Your task to perform on an android device: Open Google Chrome Image 0: 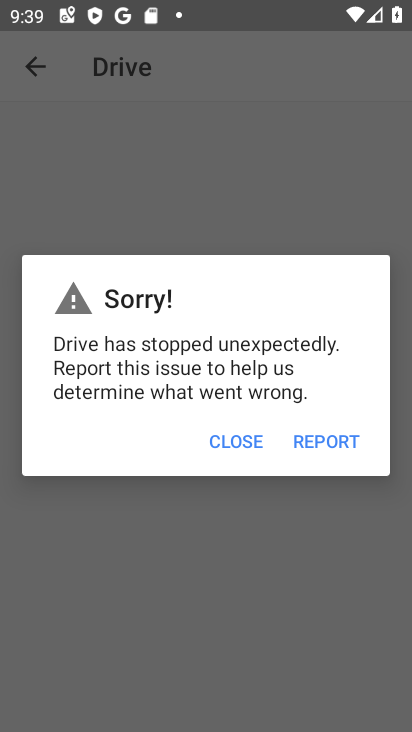
Step 0: press home button
Your task to perform on an android device: Open Google Chrome Image 1: 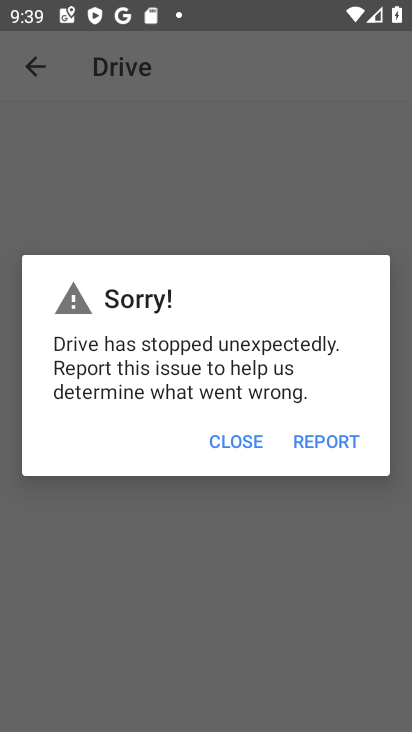
Step 1: press home button
Your task to perform on an android device: Open Google Chrome Image 2: 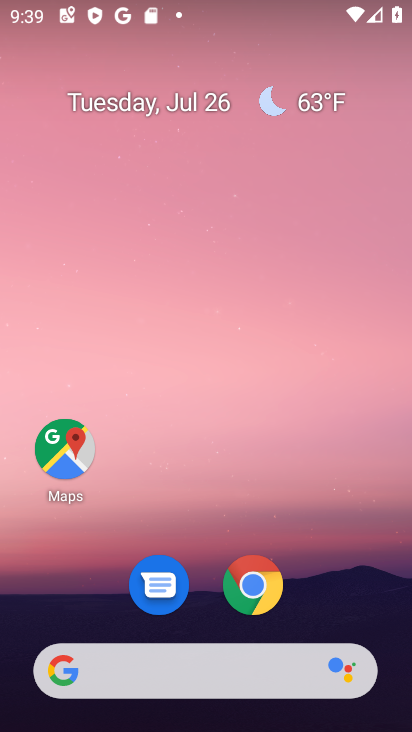
Step 2: click (257, 584)
Your task to perform on an android device: Open Google Chrome Image 3: 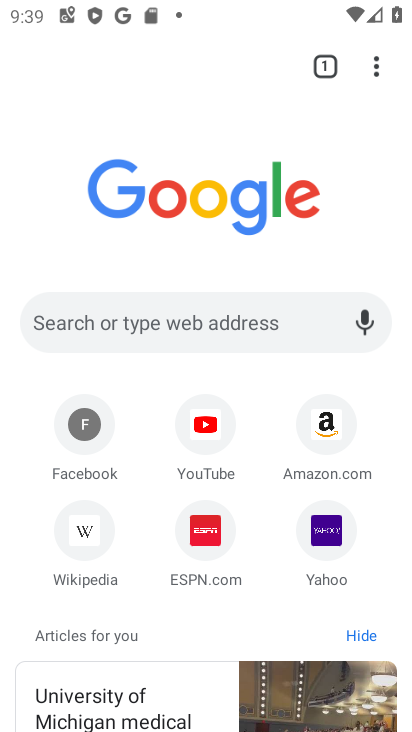
Step 3: task complete